Your task to perform on an android device: turn off translation in the chrome app Image 0: 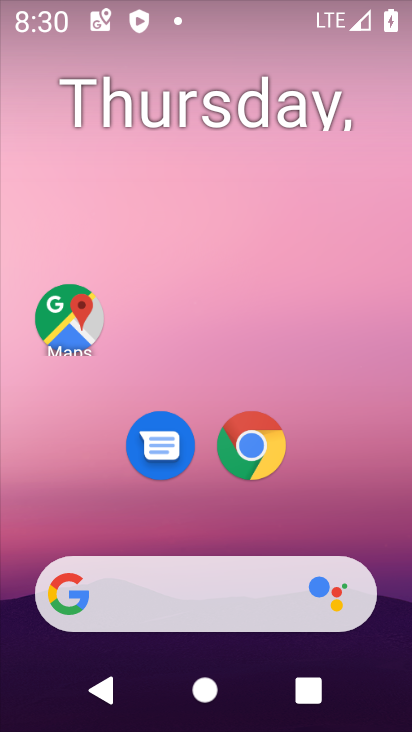
Step 0: drag from (387, 630) to (321, 134)
Your task to perform on an android device: turn off translation in the chrome app Image 1: 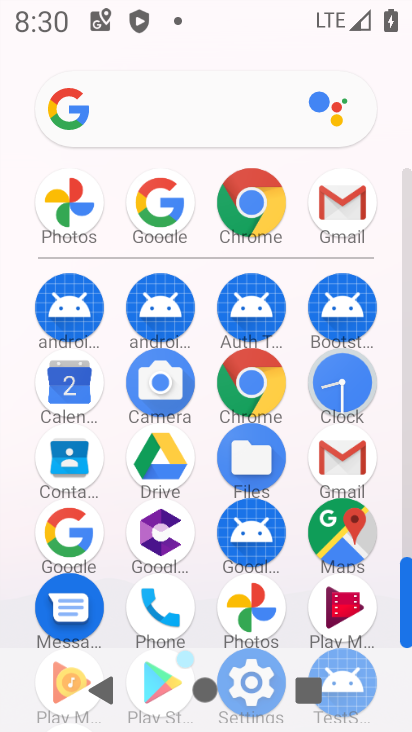
Step 1: click (254, 213)
Your task to perform on an android device: turn off translation in the chrome app Image 2: 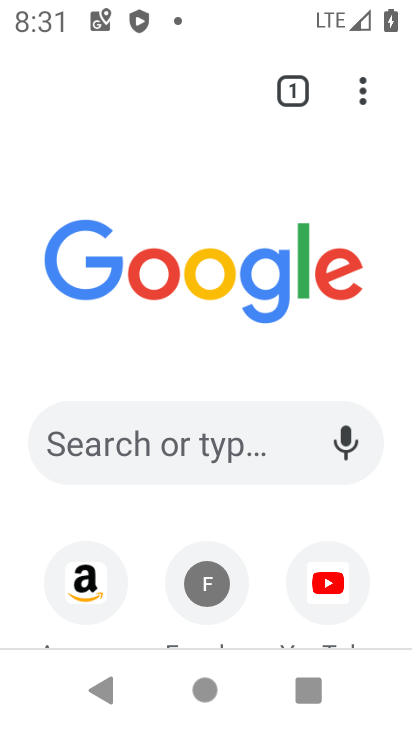
Step 2: click (365, 92)
Your task to perform on an android device: turn off translation in the chrome app Image 3: 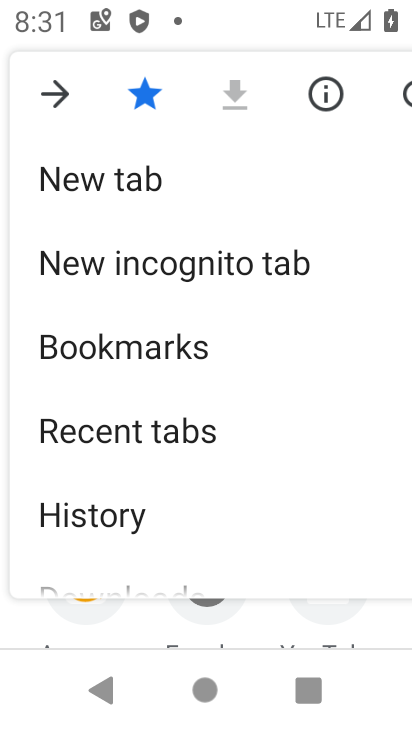
Step 3: drag from (192, 550) to (241, 114)
Your task to perform on an android device: turn off translation in the chrome app Image 4: 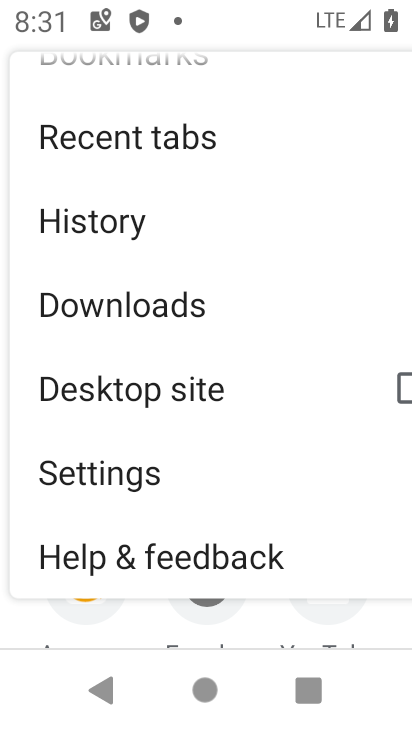
Step 4: click (125, 474)
Your task to perform on an android device: turn off translation in the chrome app Image 5: 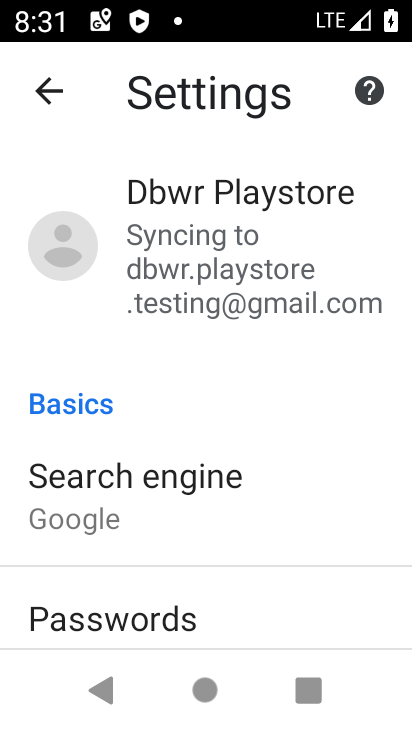
Step 5: drag from (196, 557) to (247, 160)
Your task to perform on an android device: turn off translation in the chrome app Image 6: 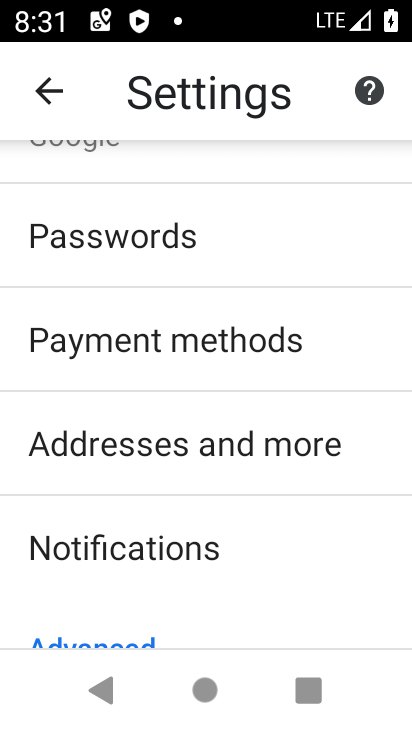
Step 6: drag from (199, 569) to (234, 170)
Your task to perform on an android device: turn off translation in the chrome app Image 7: 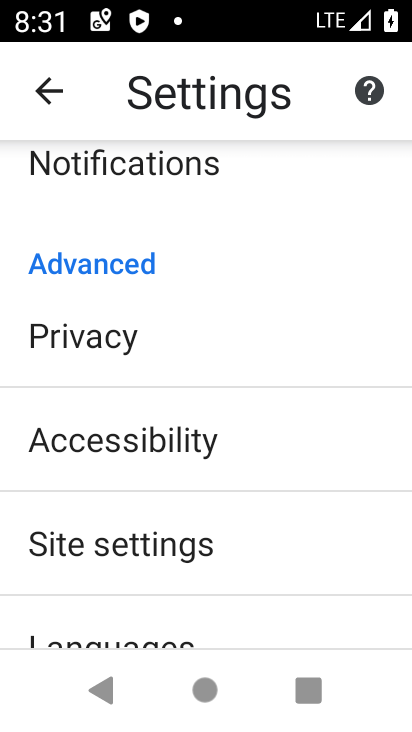
Step 7: click (158, 623)
Your task to perform on an android device: turn off translation in the chrome app Image 8: 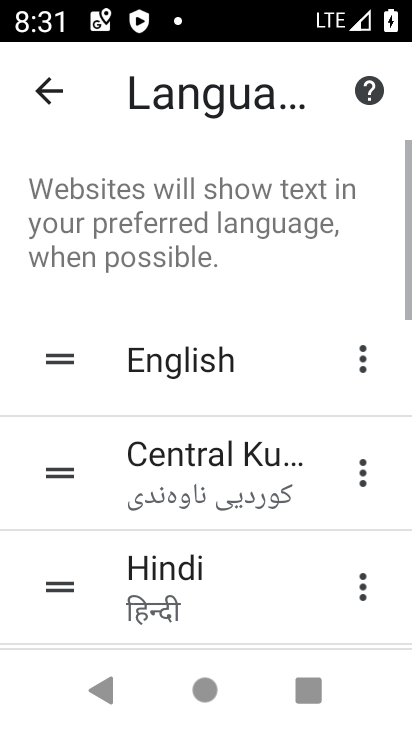
Step 8: drag from (181, 609) to (217, 175)
Your task to perform on an android device: turn off translation in the chrome app Image 9: 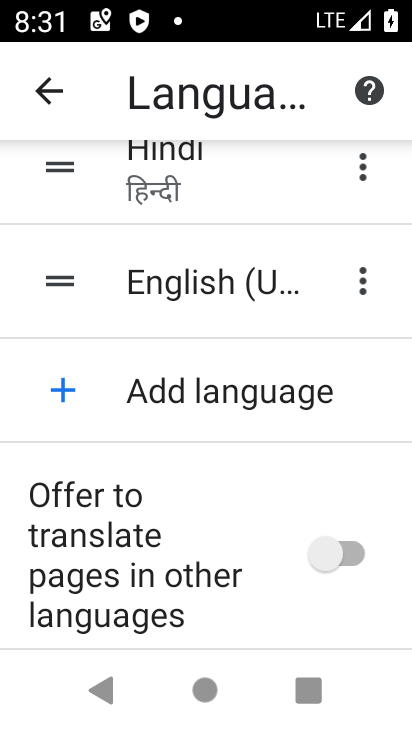
Step 9: click (314, 548)
Your task to perform on an android device: turn off translation in the chrome app Image 10: 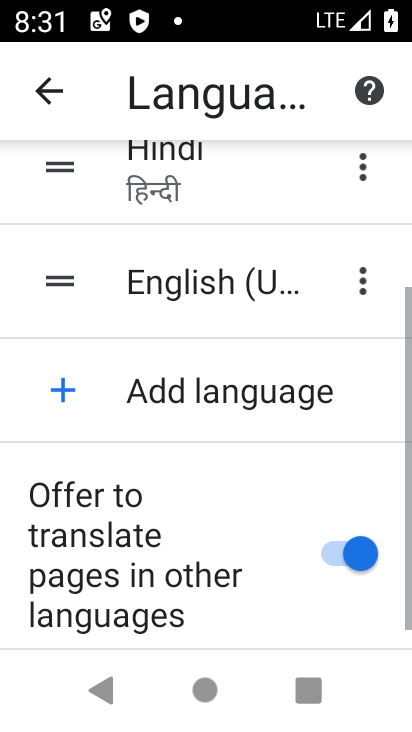
Step 10: click (314, 548)
Your task to perform on an android device: turn off translation in the chrome app Image 11: 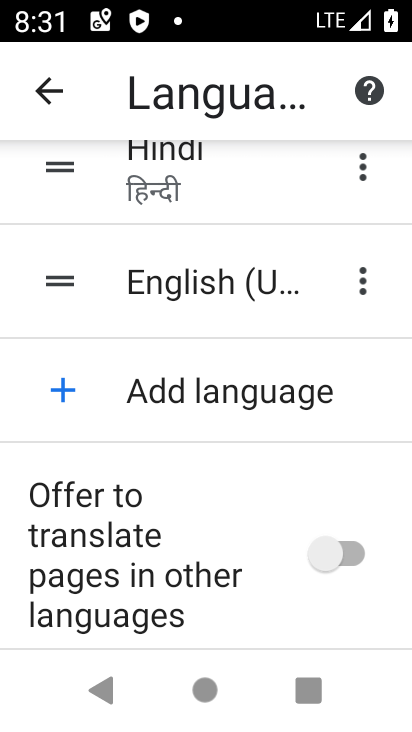
Step 11: task complete